Your task to perform on an android device: Go to ESPN.com Image 0: 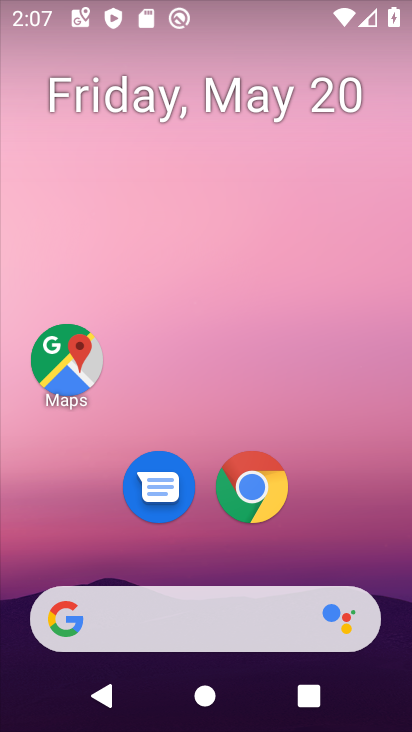
Step 0: click (247, 499)
Your task to perform on an android device: Go to ESPN.com Image 1: 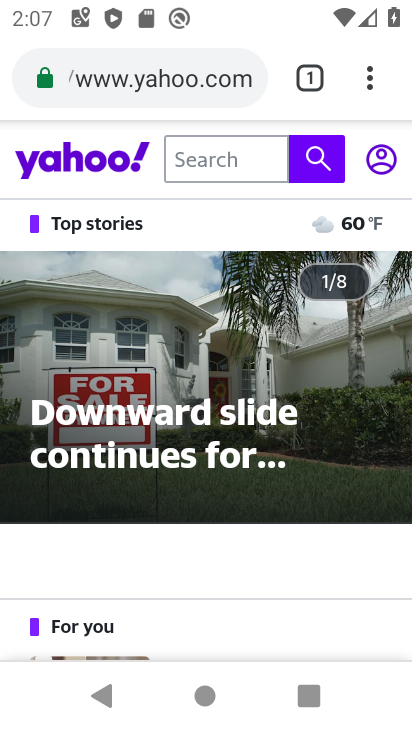
Step 1: click (172, 79)
Your task to perform on an android device: Go to ESPN.com Image 2: 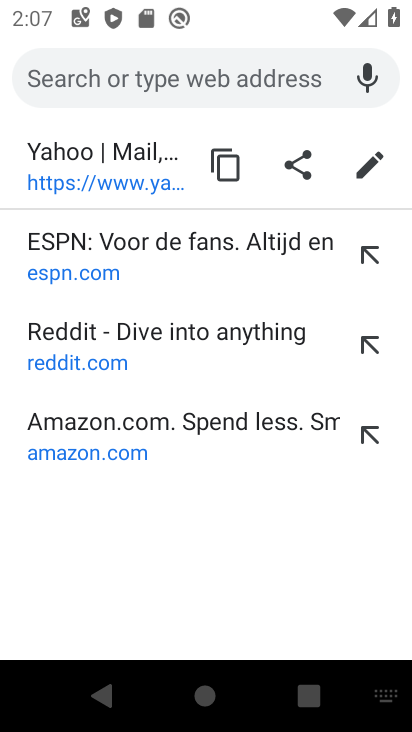
Step 2: click (105, 230)
Your task to perform on an android device: Go to ESPN.com Image 3: 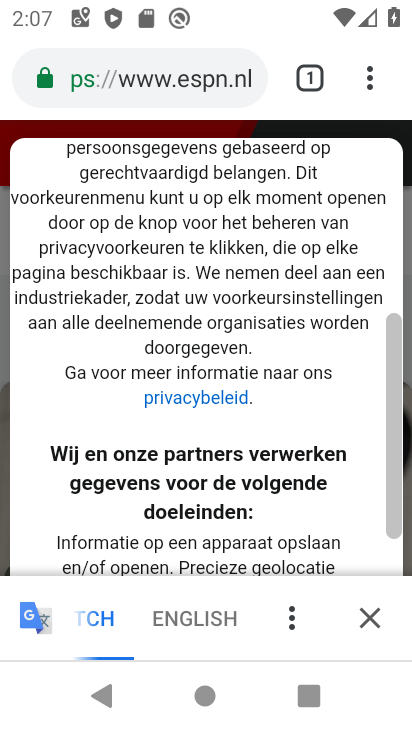
Step 3: task complete